Your task to perform on an android device: change alarm snooze length Image 0: 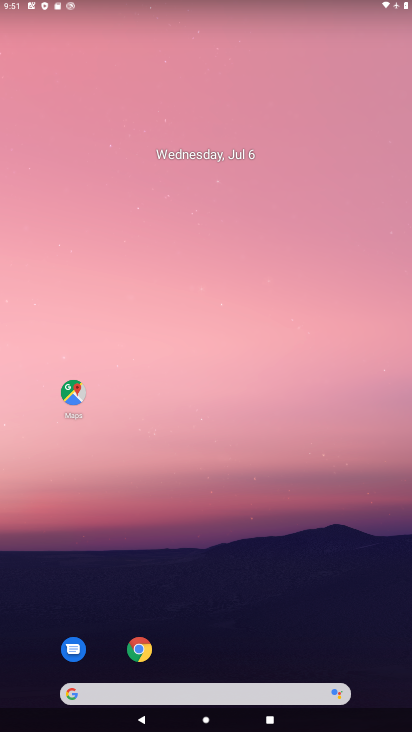
Step 0: drag from (384, 669) to (288, 115)
Your task to perform on an android device: change alarm snooze length Image 1: 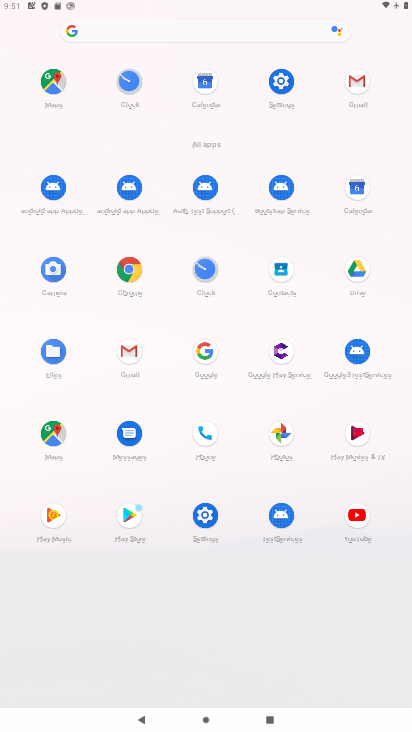
Step 1: click (203, 269)
Your task to perform on an android device: change alarm snooze length Image 2: 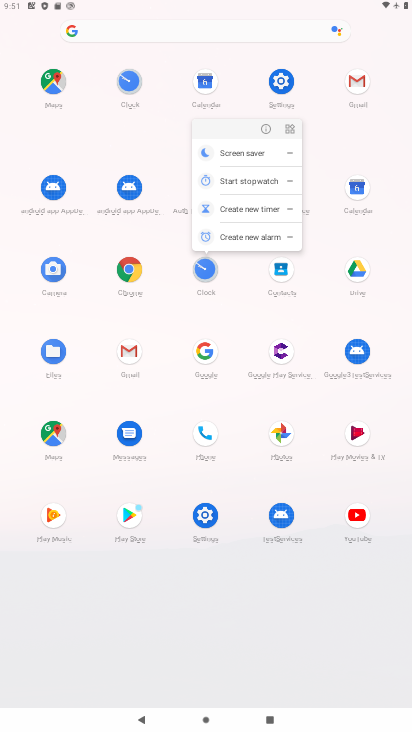
Step 2: click (203, 269)
Your task to perform on an android device: change alarm snooze length Image 3: 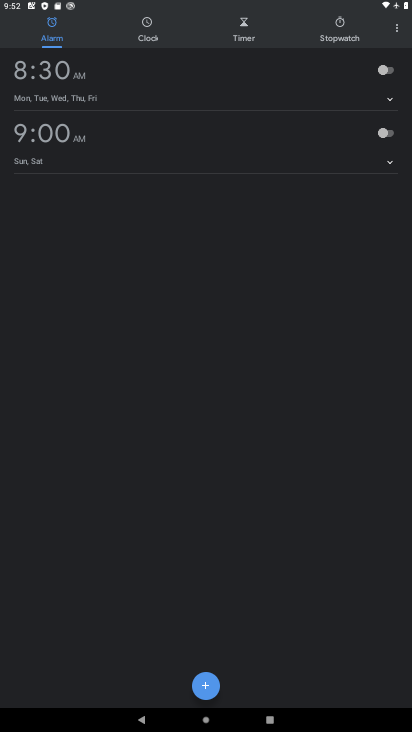
Step 3: click (395, 32)
Your task to perform on an android device: change alarm snooze length Image 4: 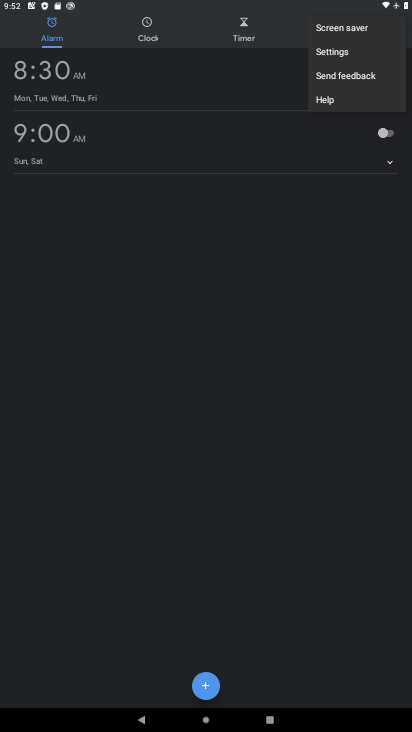
Step 4: click (351, 53)
Your task to perform on an android device: change alarm snooze length Image 5: 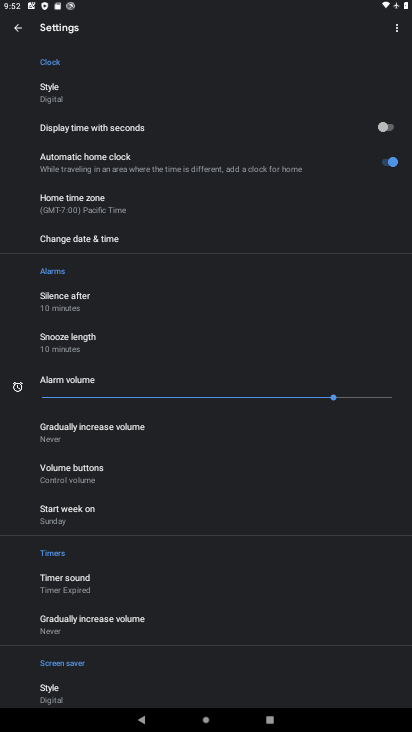
Step 5: click (73, 335)
Your task to perform on an android device: change alarm snooze length Image 6: 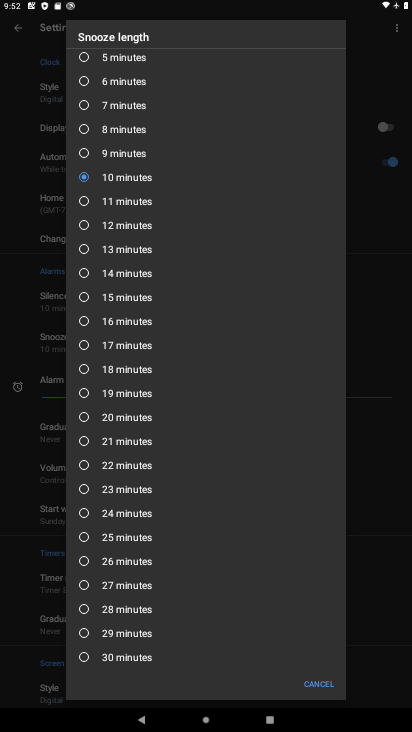
Step 6: click (90, 323)
Your task to perform on an android device: change alarm snooze length Image 7: 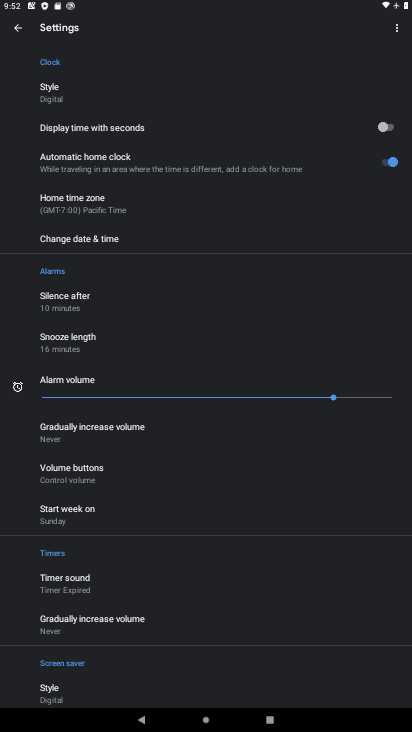
Step 7: click (64, 335)
Your task to perform on an android device: change alarm snooze length Image 8: 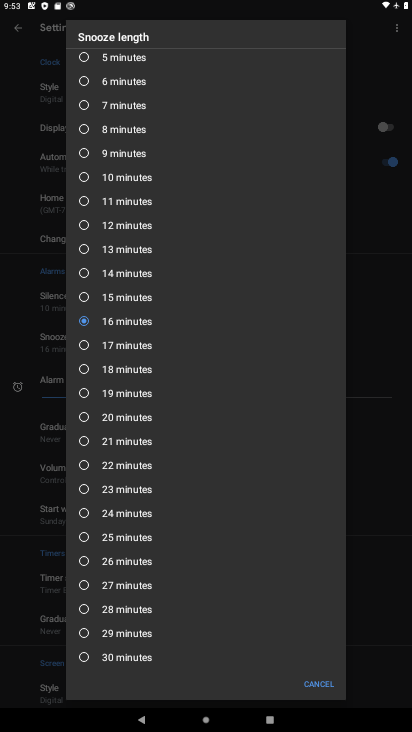
Step 8: click (84, 269)
Your task to perform on an android device: change alarm snooze length Image 9: 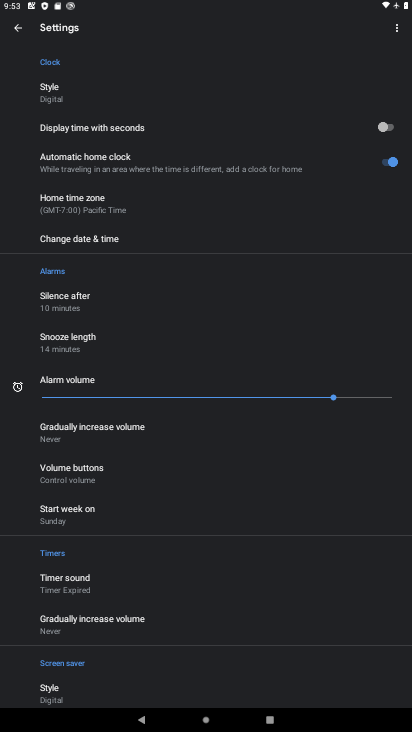
Step 9: task complete